Your task to perform on an android device: change timer sound Image 0: 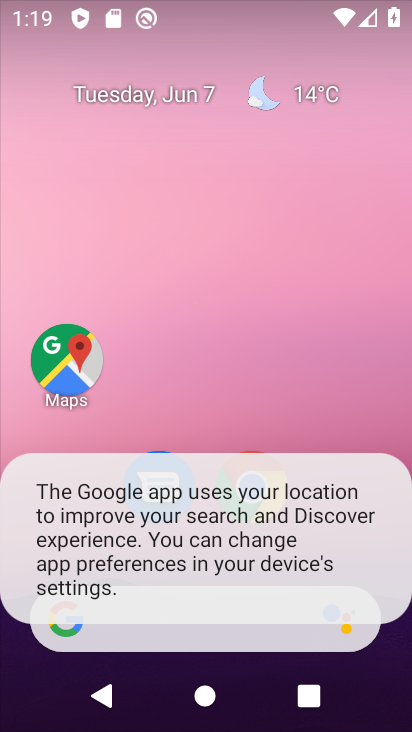
Step 0: drag from (175, 566) to (181, 9)
Your task to perform on an android device: change timer sound Image 1: 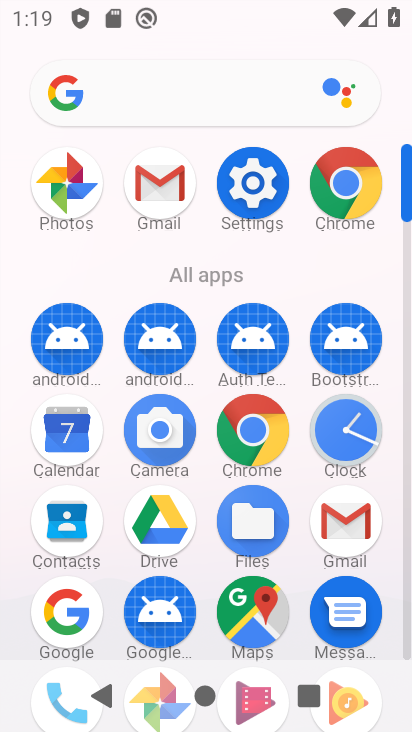
Step 1: click (359, 525)
Your task to perform on an android device: change timer sound Image 2: 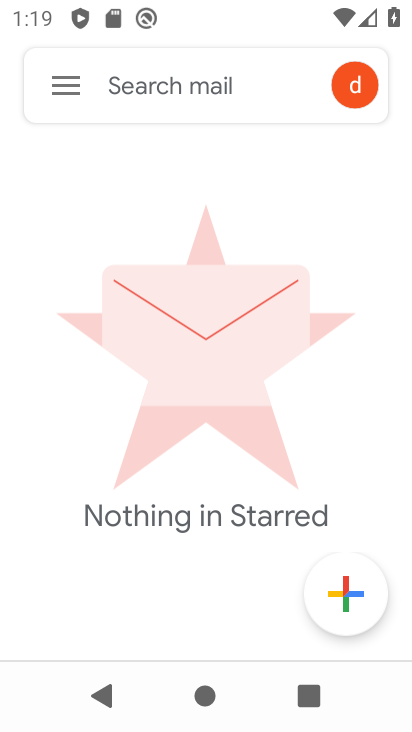
Step 2: press home button
Your task to perform on an android device: change timer sound Image 3: 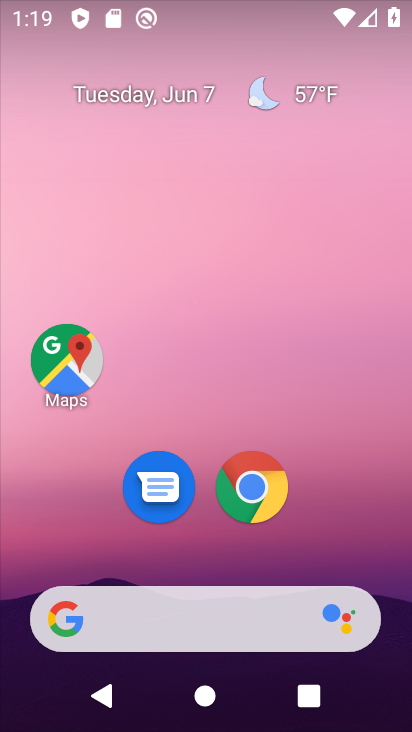
Step 3: drag from (233, 572) to (312, 50)
Your task to perform on an android device: change timer sound Image 4: 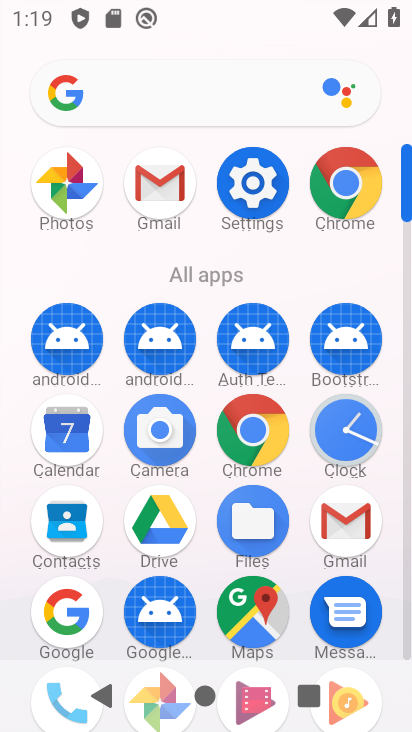
Step 4: click (354, 428)
Your task to perform on an android device: change timer sound Image 5: 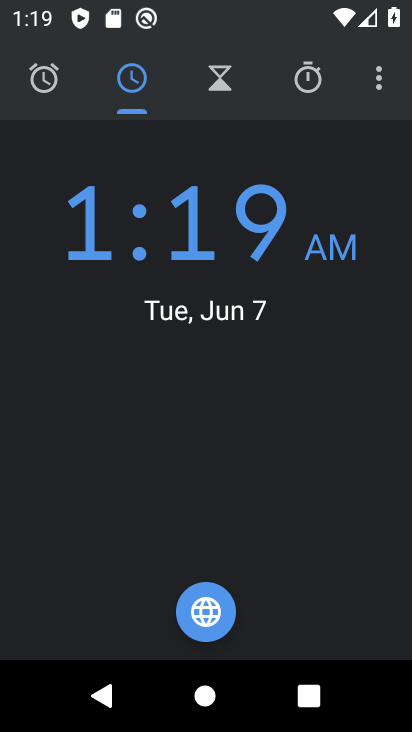
Step 5: click (386, 79)
Your task to perform on an android device: change timer sound Image 6: 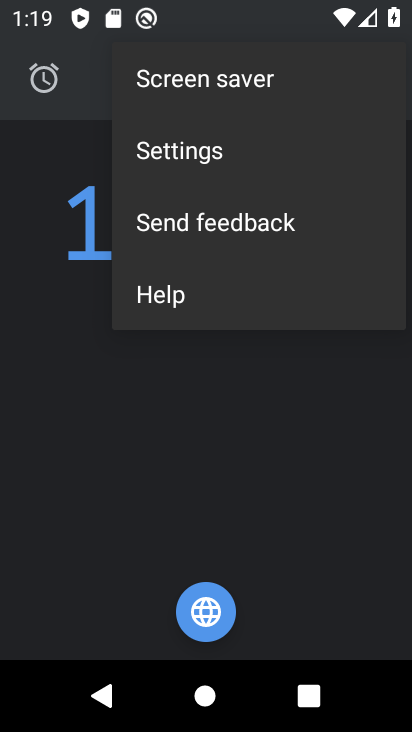
Step 6: click (193, 147)
Your task to perform on an android device: change timer sound Image 7: 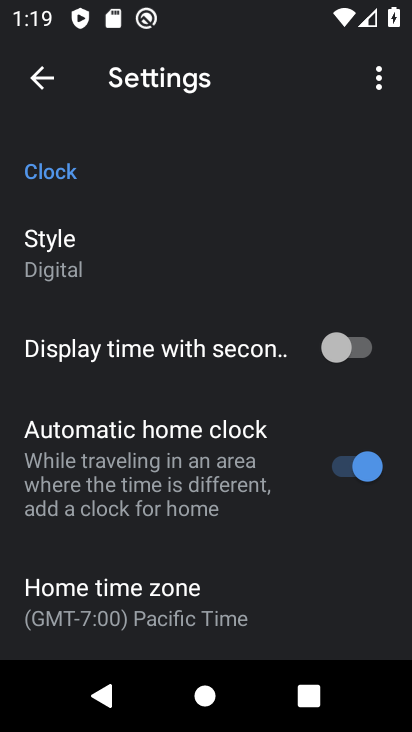
Step 7: drag from (113, 533) to (71, 17)
Your task to perform on an android device: change timer sound Image 8: 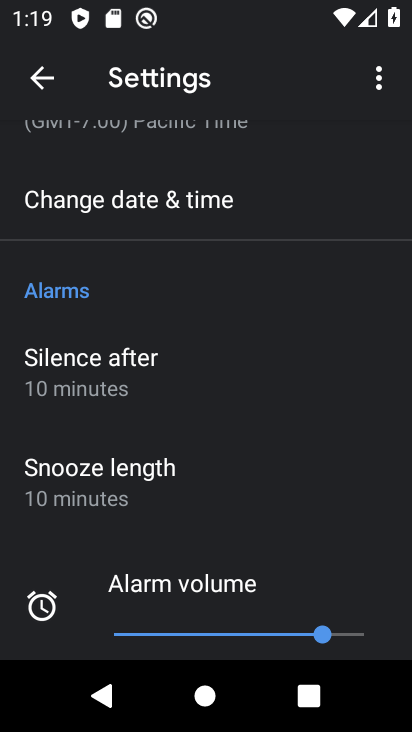
Step 8: drag from (132, 474) to (73, 35)
Your task to perform on an android device: change timer sound Image 9: 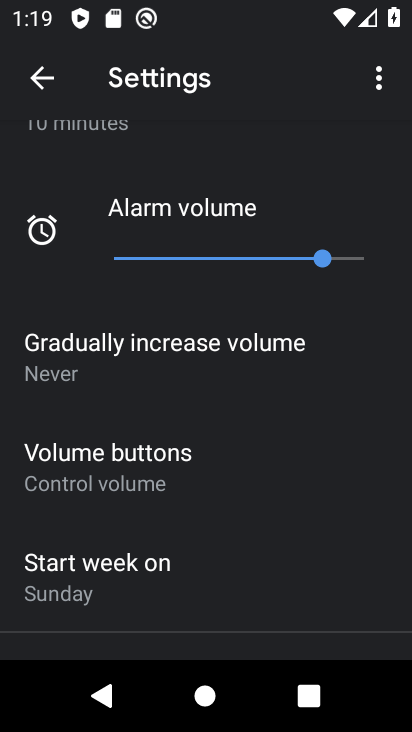
Step 9: drag from (167, 560) to (102, 29)
Your task to perform on an android device: change timer sound Image 10: 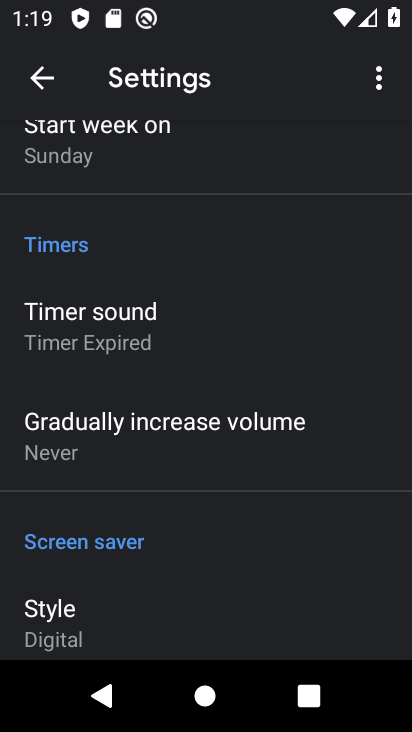
Step 10: click (130, 308)
Your task to perform on an android device: change timer sound Image 11: 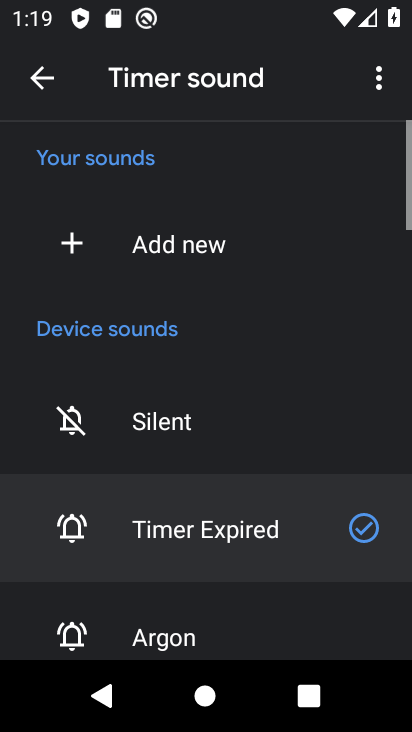
Step 11: click (135, 580)
Your task to perform on an android device: change timer sound Image 12: 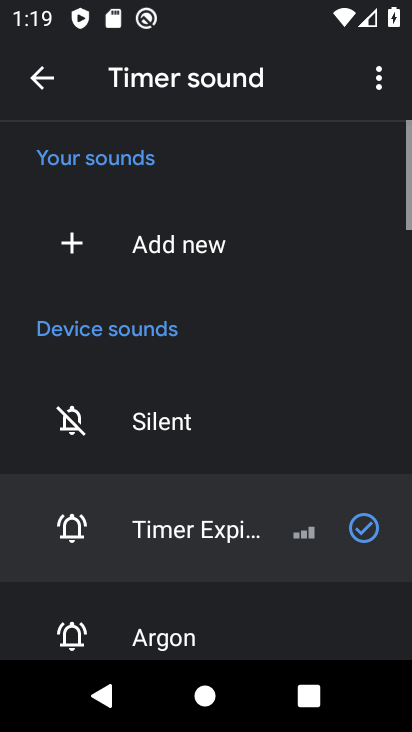
Step 12: task complete